Your task to perform on an android device: see creations saved in the google photos Image 0: 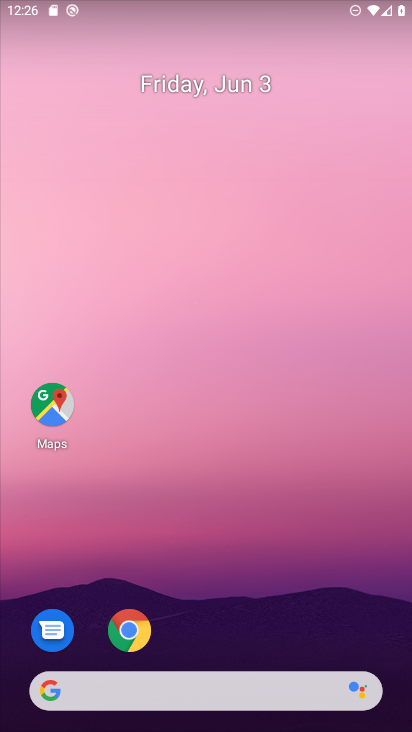
Step 0: drag from (243, 409) to (208, 217)
Your task to perform on an android device: see creations saved in the google photos Image 1: 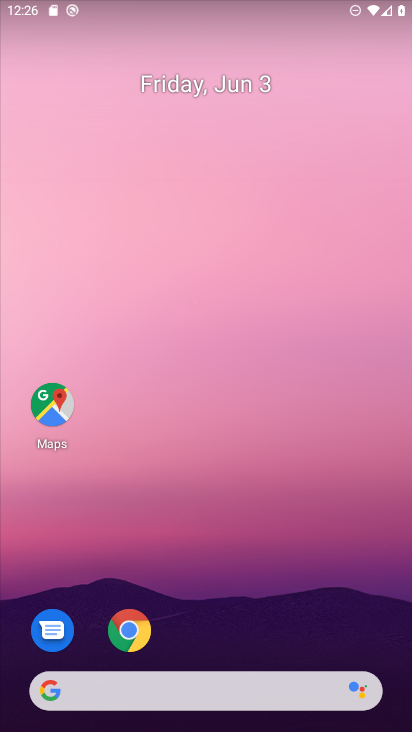
Step 1: drag from (222, 632) to (190, 228)
Your task to perform on an android device: see creations saved in the google photos Image 2: 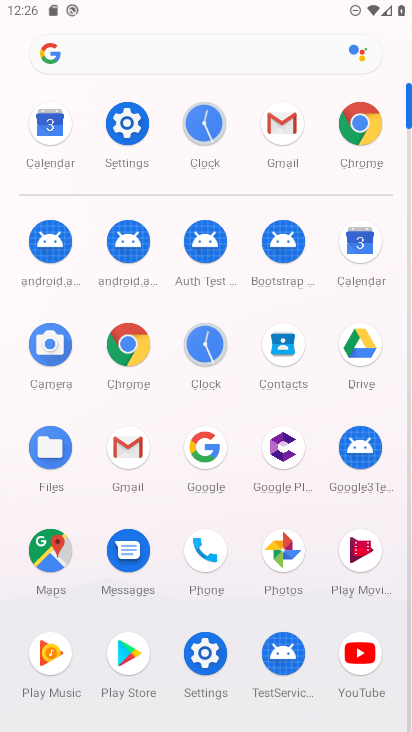
Step 2: click (294, 546)
Your task to perform on an android device: see creations saved in the google photos Image 3: 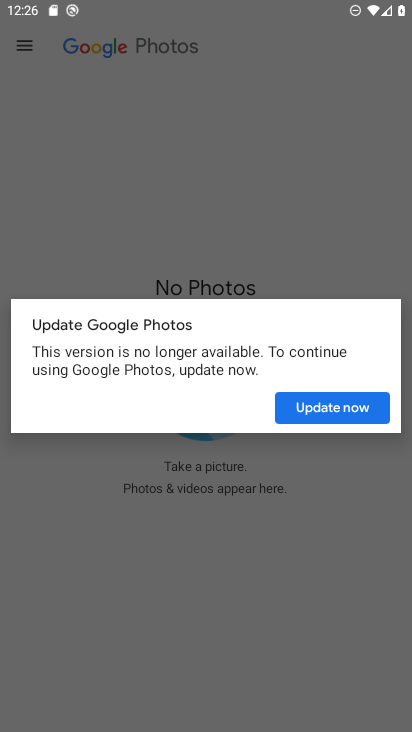
Step 3: click (364, 401)
Your task to perform on an android device: see creations saved in the google photos Image 4: 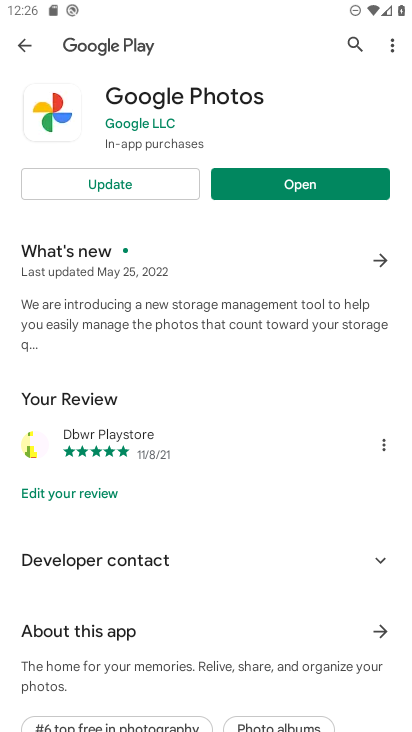
Step 4: click (168, 175)
Your task to perform on an android device: see creations saved in the google photos Image 5: 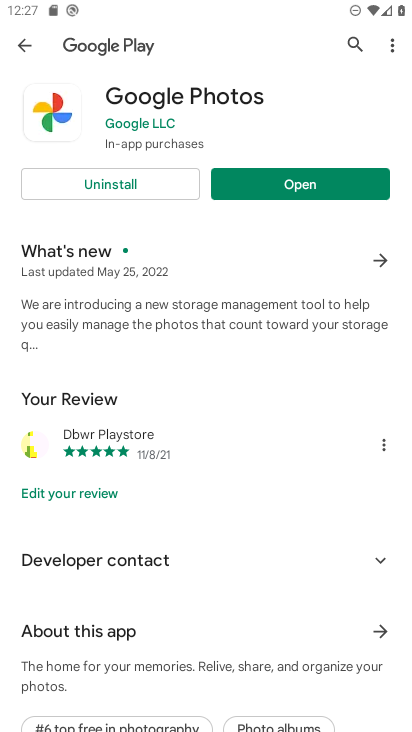
Step 5: click (369, 194)
Your task to perform on an android device: see creations saved in the google photos Image 6: 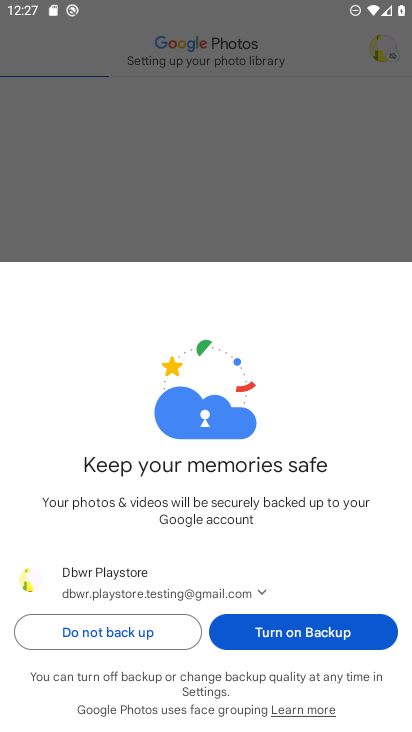
Step 6: click (244, 629)
Your task to perform on an android device: see creations saved in the google photos Image 7: 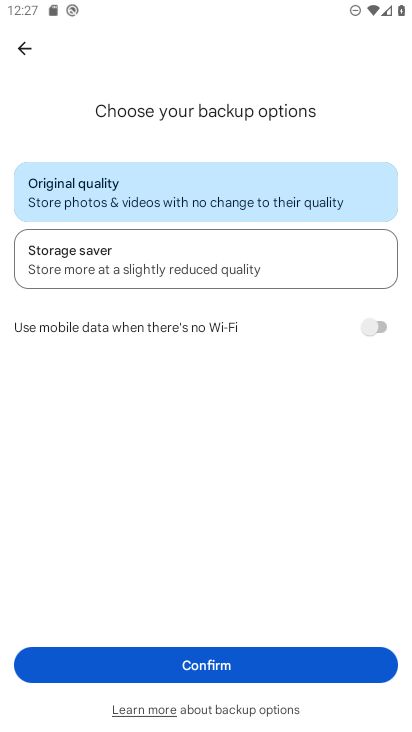
Step 7: click (239, 666)
Your task to perform on an android device: see creations saved in the google photos Image 8: 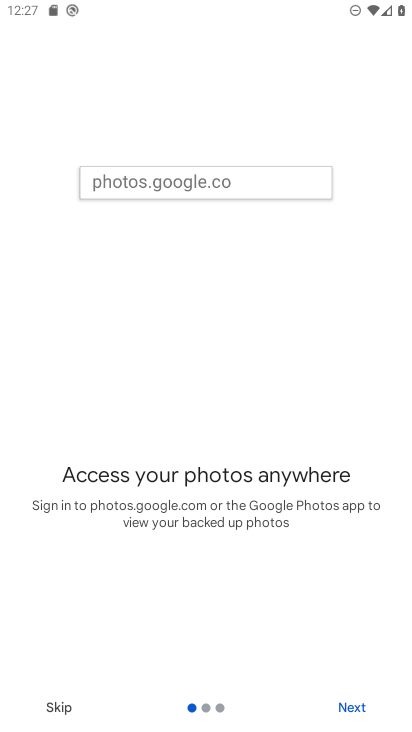
Step 8: click (70, 707)
Your task to perform on an android device: see creations saved in the google photos Image 9: 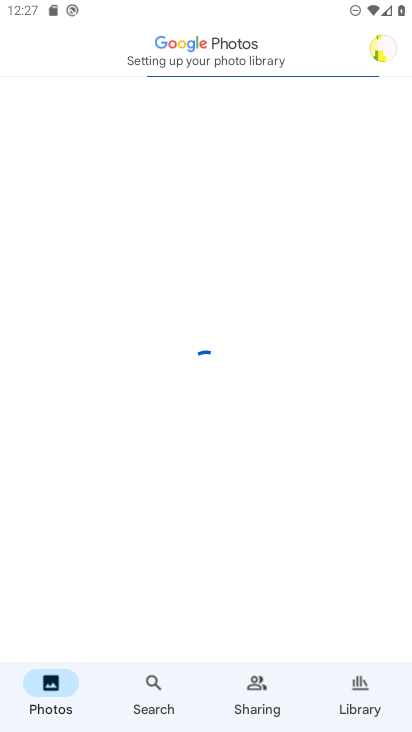
Step 9: click (155, 702)
Your task to perform on an android device: see creations saved in the google photos Image 10: 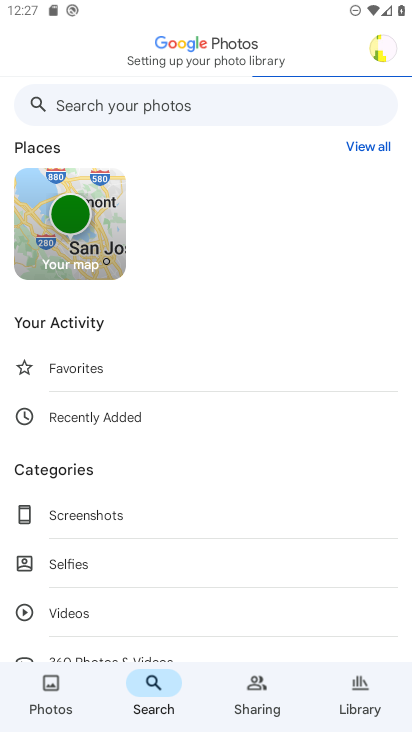
Step 10: click (189, 129)
Your task to perform on an android device: see creations saved in the google photos Image 11: 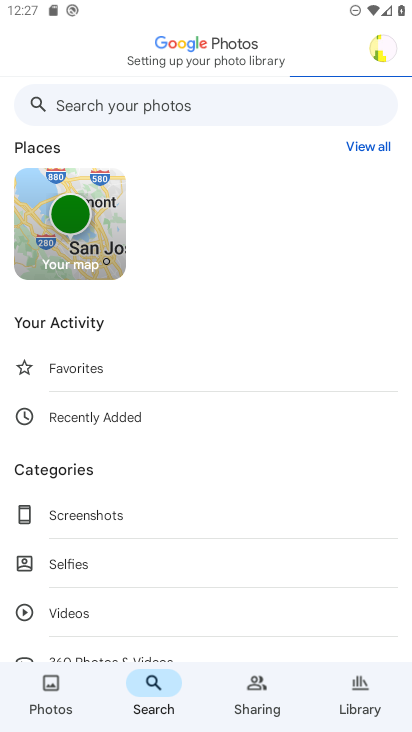
Step 11: click (186, 114)
Your task to perform on an android device: see creations saved in the google photos Image 12: 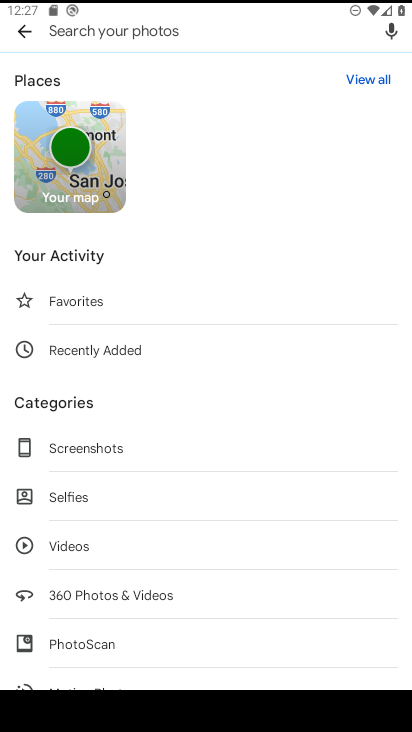
Step 12: drag from (198, 597) to (158, 232)
Your task to perform on an android device: see creations saved in the google photos Image 13: 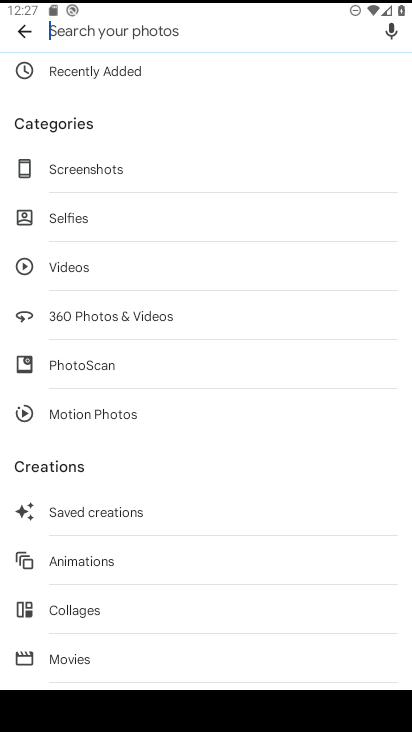
Step 13: click (133, 510)
Your task to perform on an android device: see creations saved in the google photos Image 14: 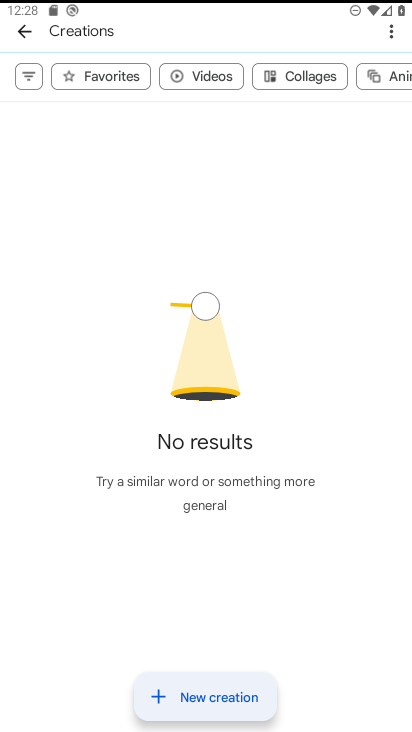
Step 14: task complete